Your task to perform on an android device: move an email to a new category in the gmail app Image 0: 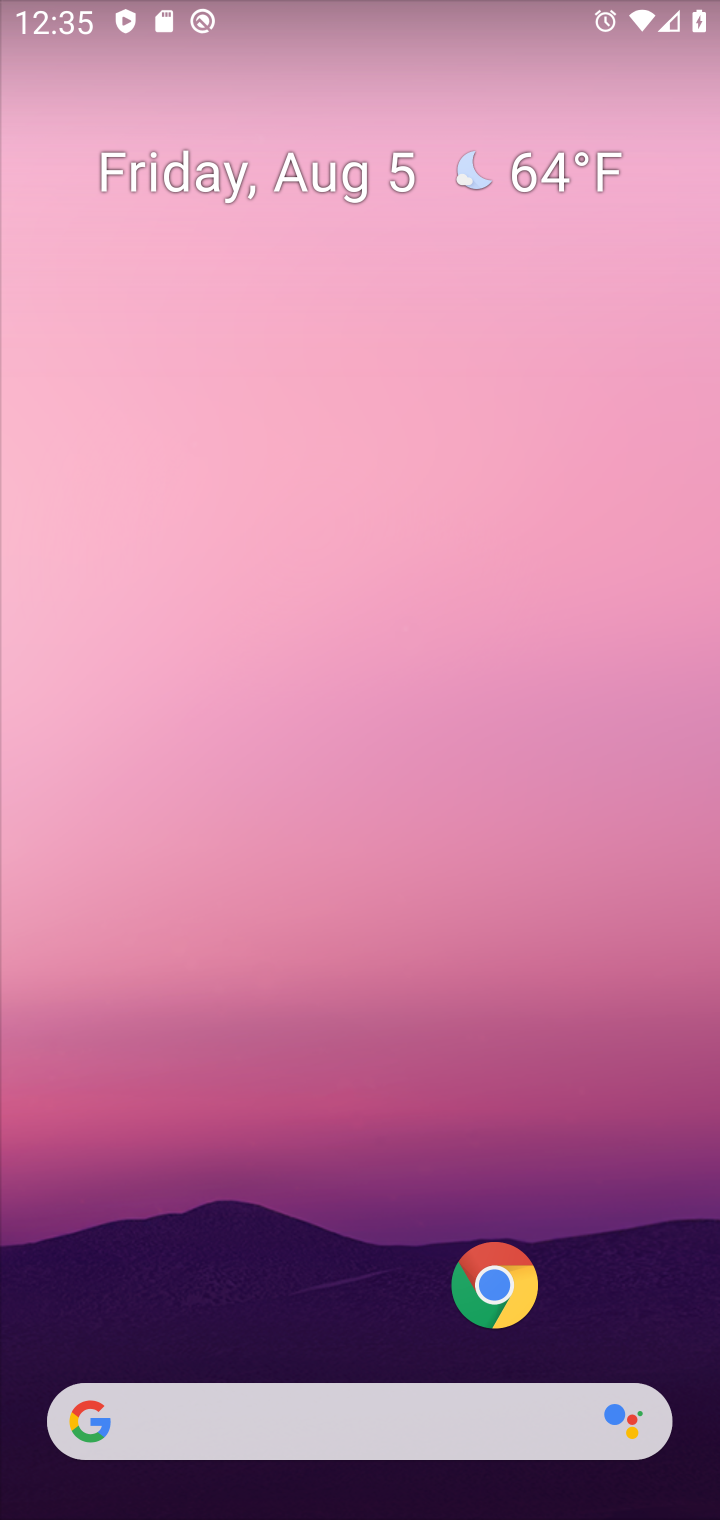
Step 0: press home button
Your task to perform on an android device: move an email to a new category in the gmail app Image 1: 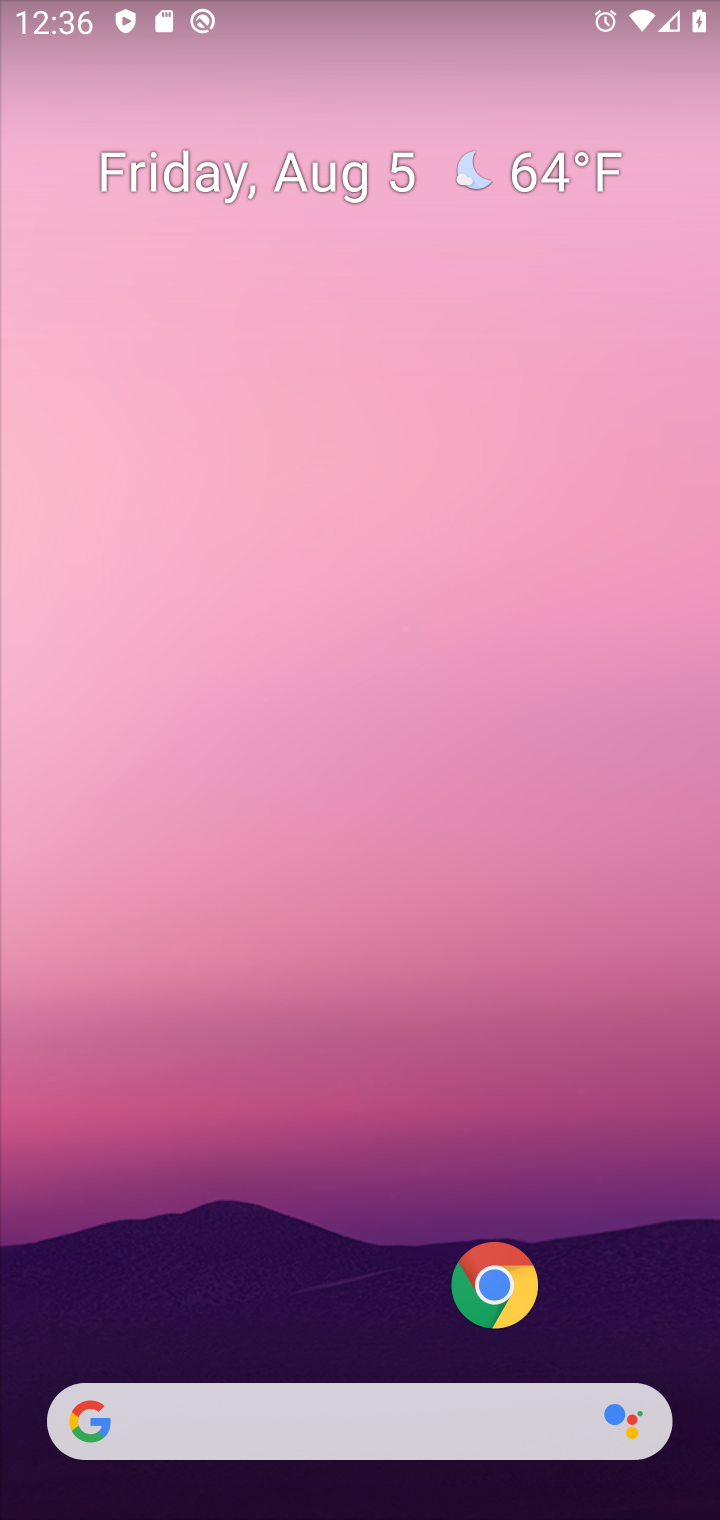
Step 1: drag from (310, 1037) to (369, 743)
Your task to perform on an android device: move an email to a new category in the gmail app Image 2: 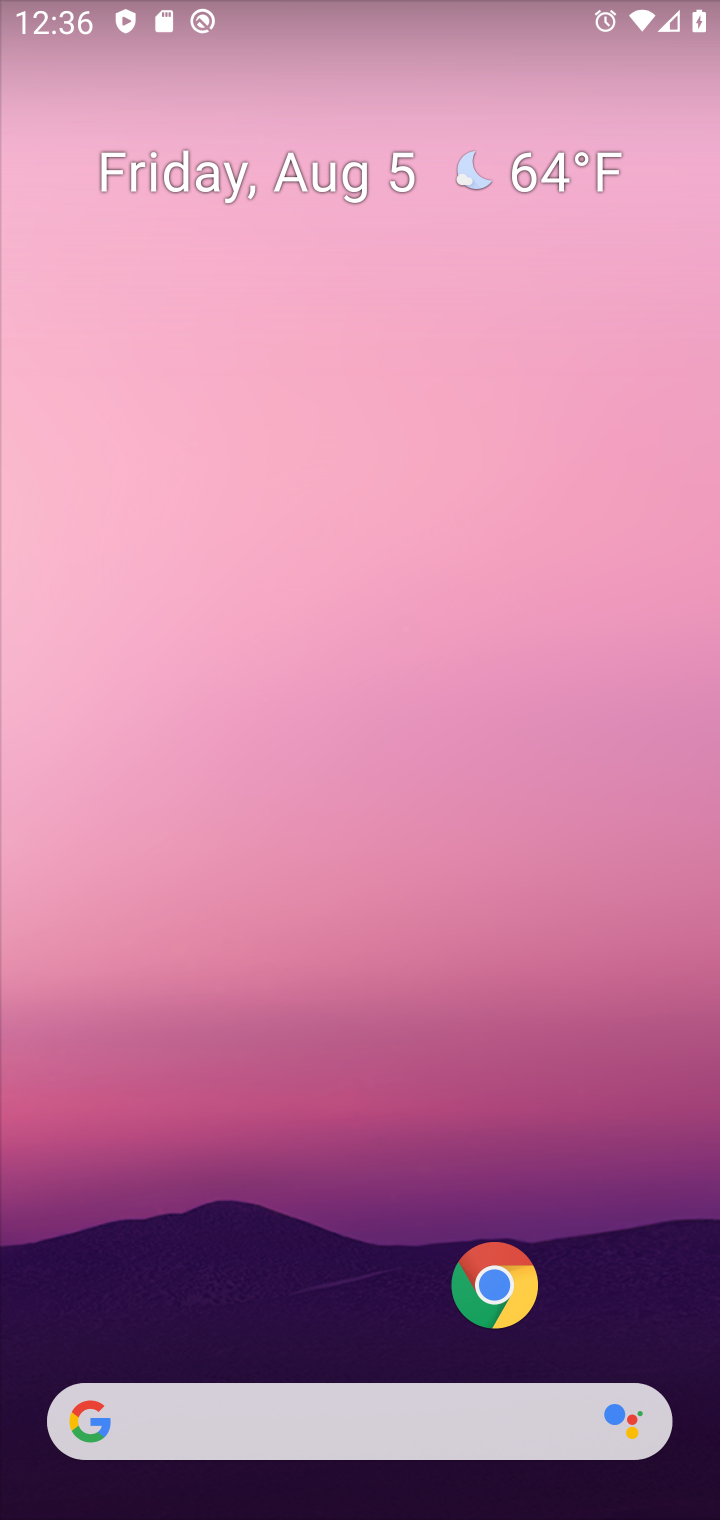
Step 2: drag from (301, 1236) to (307, 428)
Your task to perform on an android device: move an email to a new category in the gmail app Image 3: 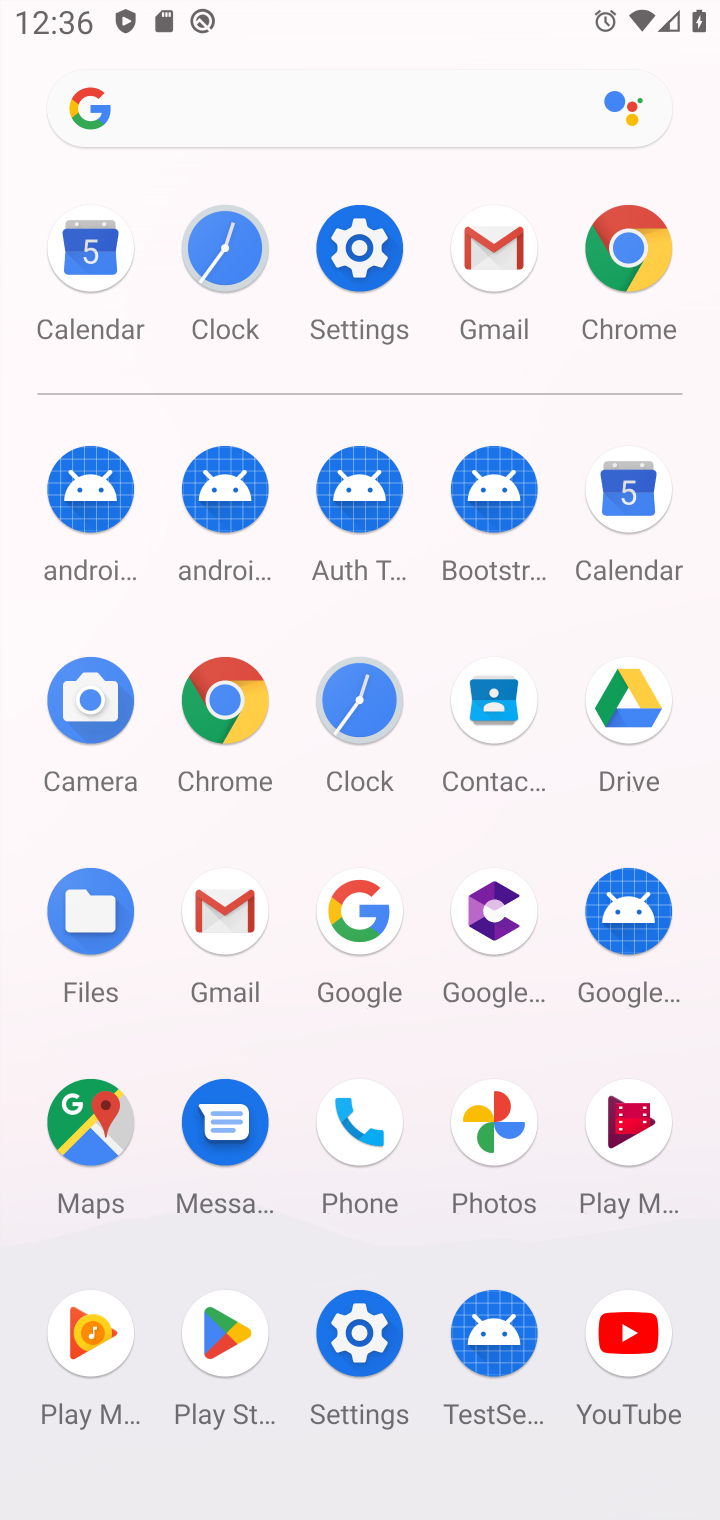
Step 3: click (262, 953)
Your task to perform on an android device: move an email to a new category in the gmail app Image 4: 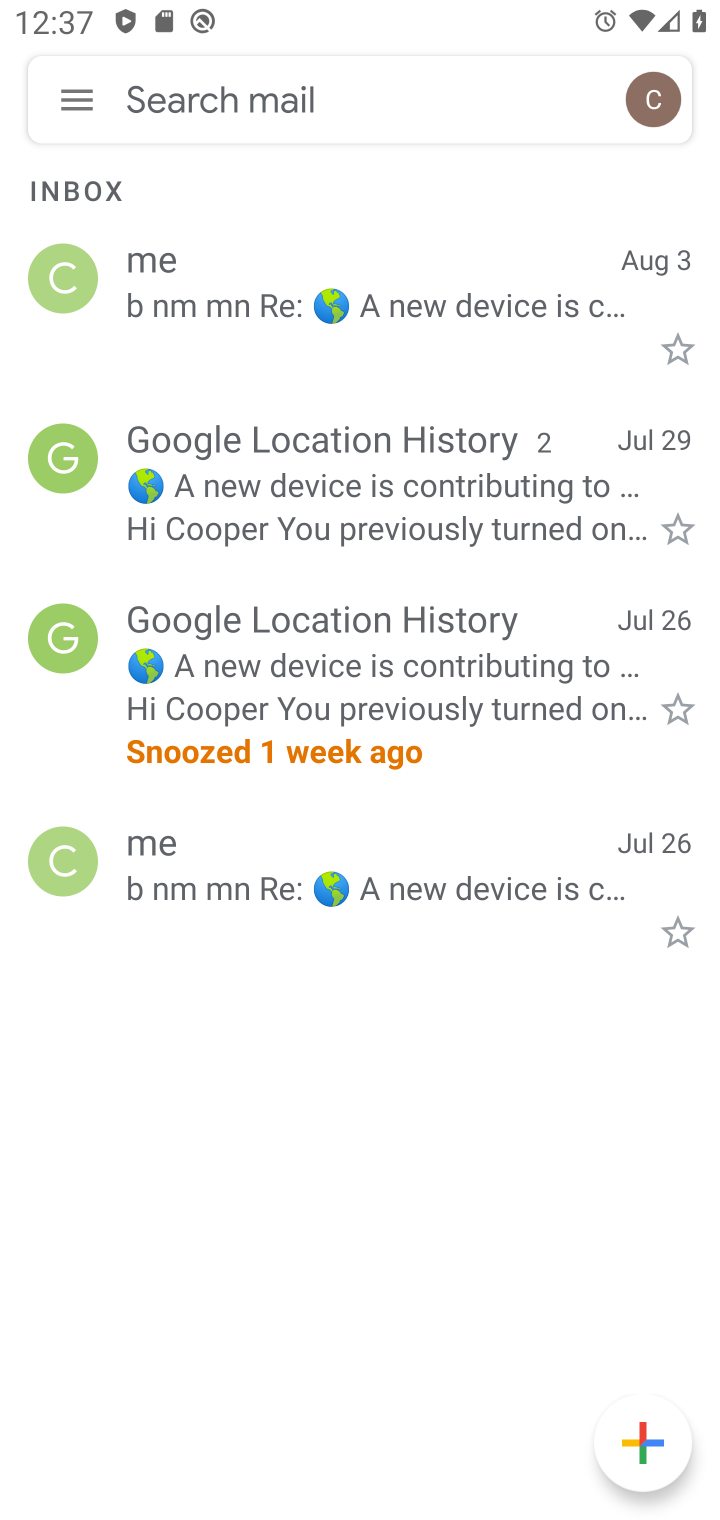
Step 4: task complete